Your task to perform on an android device: check data usage Image 0: 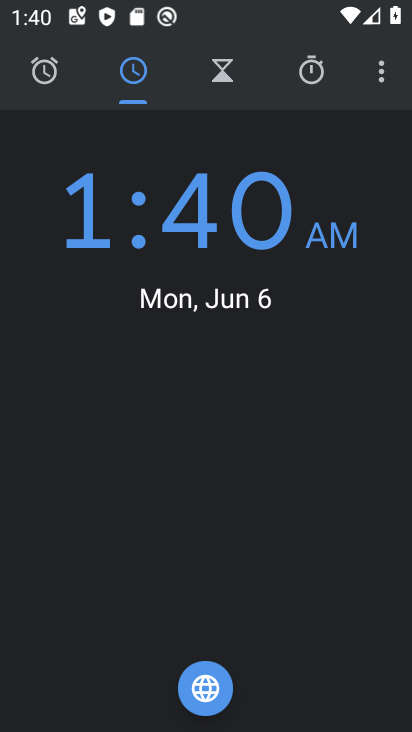
Step 0: press back button
Your task to perform on an android device: check data usage Image 1: 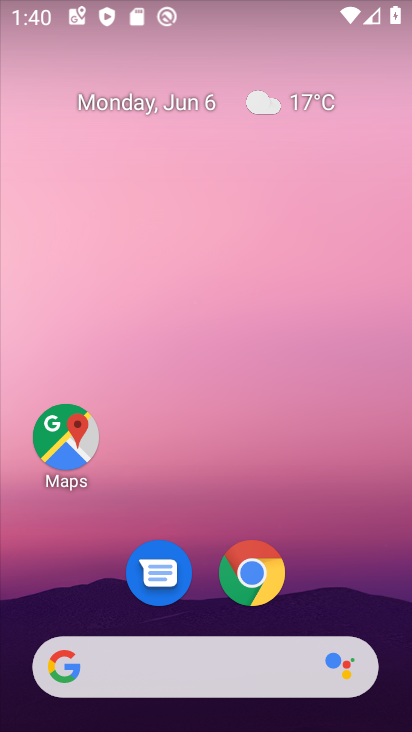
Step 1: drag from (211, 541) to (256, 94)
Your task to perform on an android device: check data usage Image 2: 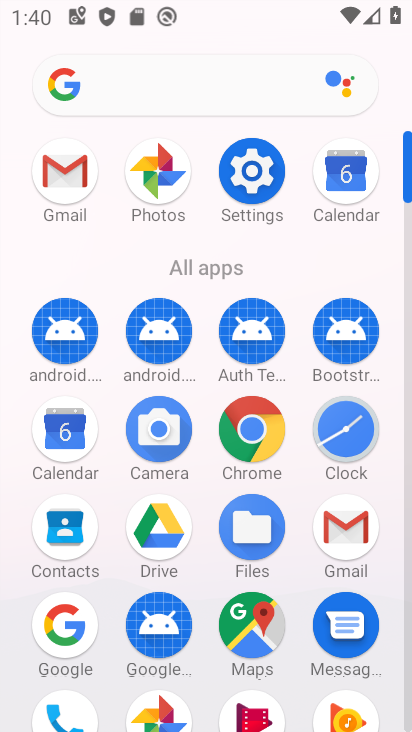
Step 2: click (253, 175)
Your task to perform on an android device: check data usage Image 3: 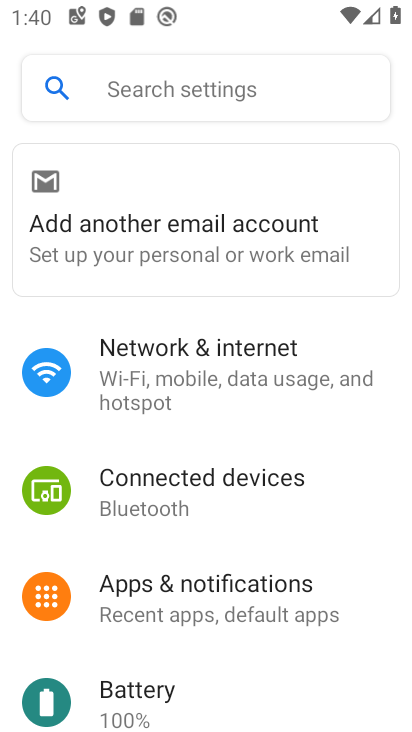
Step 3: click (190, 384)
Your task to perform on an android device: check data usage Image 4: 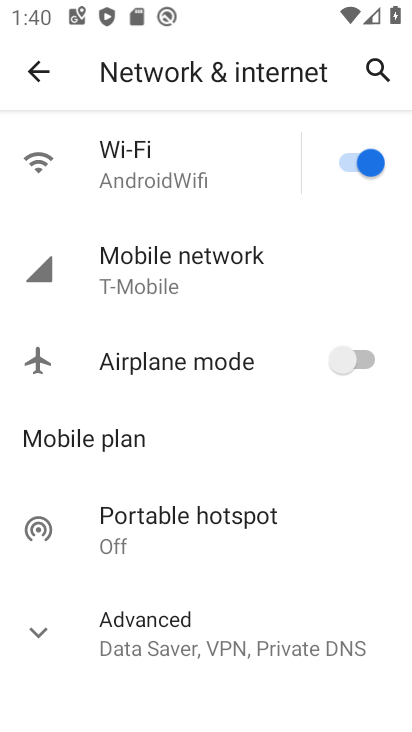
Step 4: click (181, 638)
Your task to perform on an android device: check data usage Image 5: 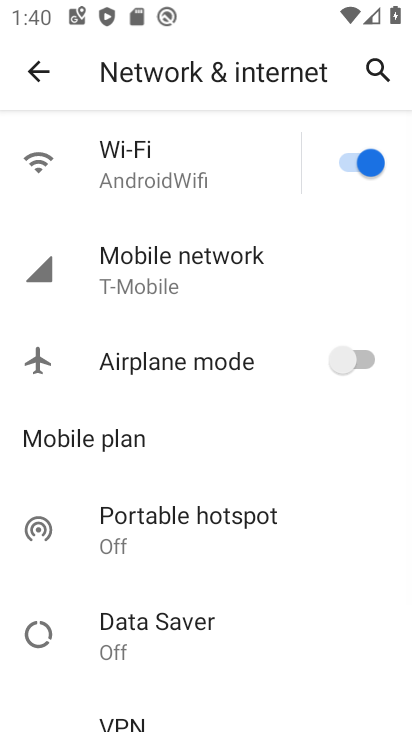
Step 5: click (181, 247)
Your task to perform on an android device: check data usage Image 6: 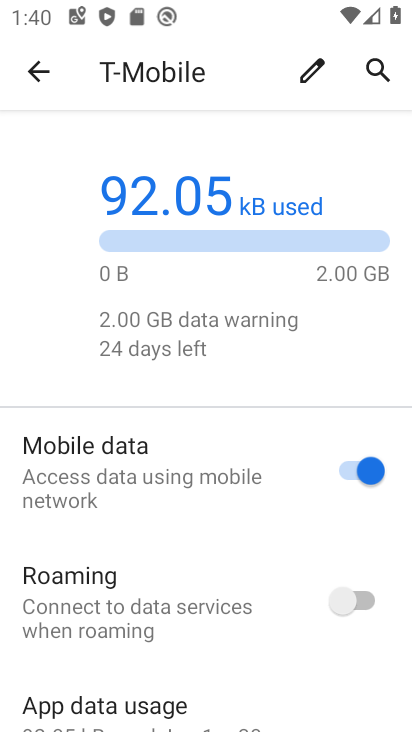
Step 6: drag from (166, 673) to (239, 263)
Your task to perform on an android device: check data usage Image 7: 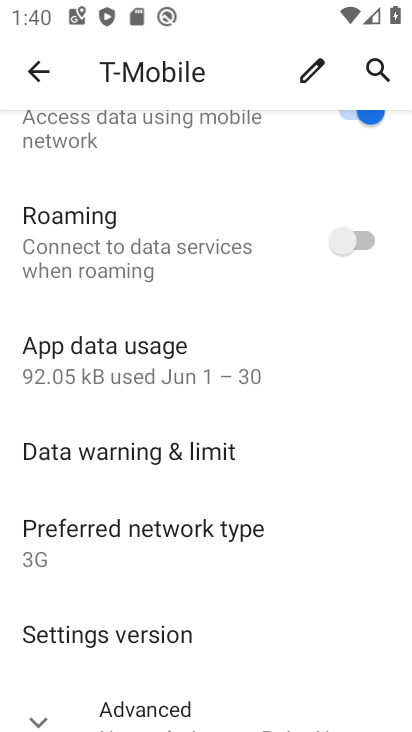
Step 7: click (173, 367)
Your task to perform on an android device: check data usage Image 8: 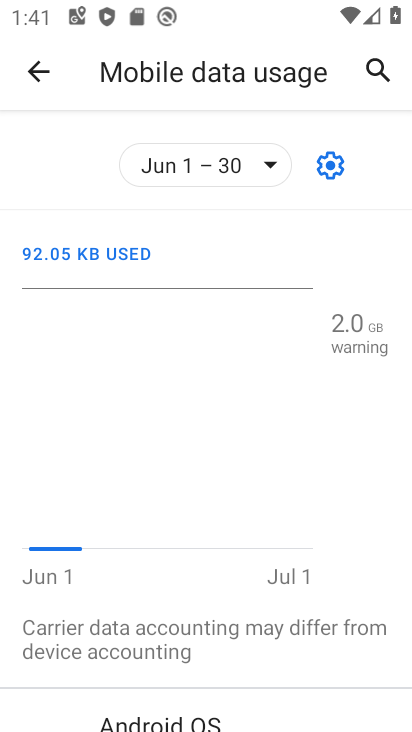
Step 8: task complete